Your task to perform on an android device: Open network settings Image 0: 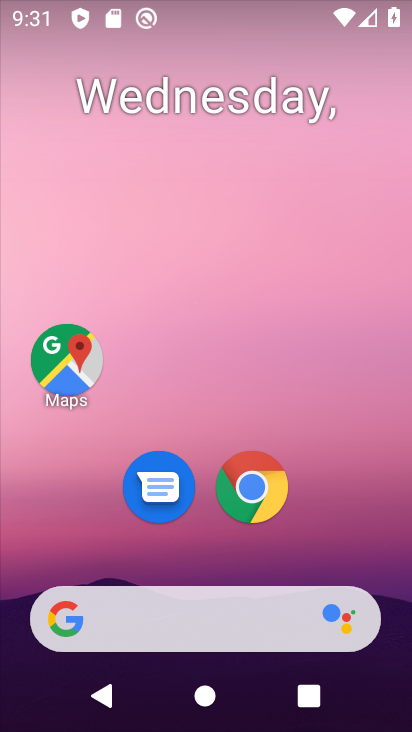
Step 0: drag from (46, 692) to (306, 112)
Your task to perform on an android device: Open network settings Image 1: 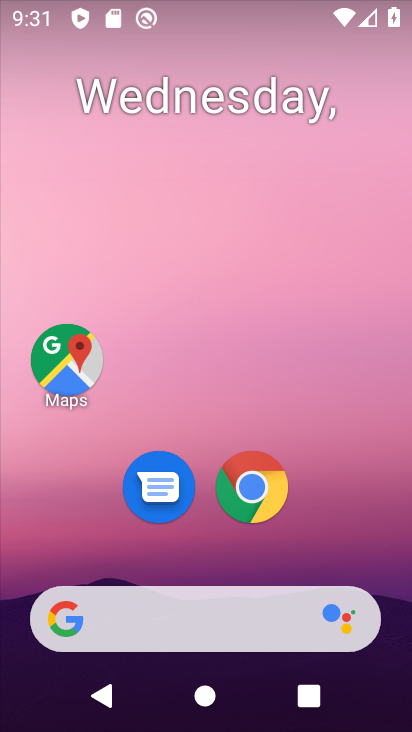
Step 1: drag from (114, 586) to (218, 329)
Your task to perform on an android device: Open network settings Image 2: 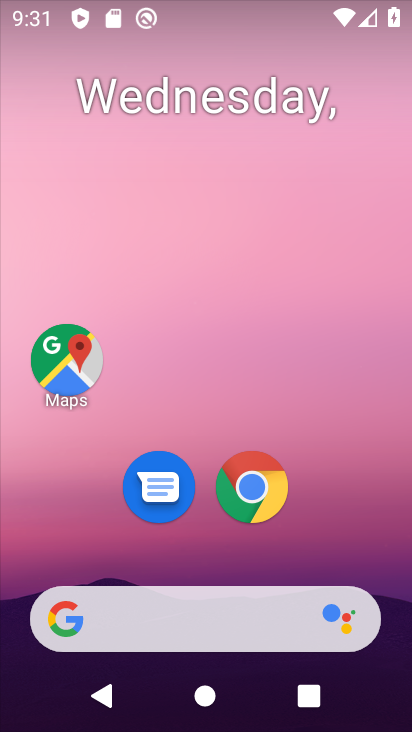
Step 2: drag from (10, 686) to (192, 179)
Your task to perform on an android device: Open network settings Image 3: 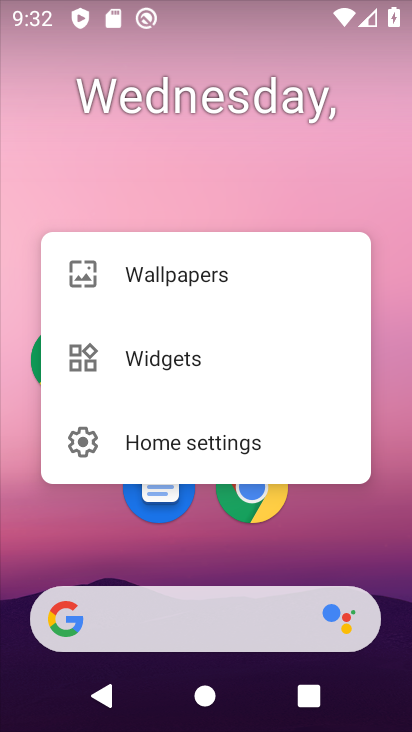
Step 3: click (89, 519)
Your task to perform on an android device: Open network settings Image 4: 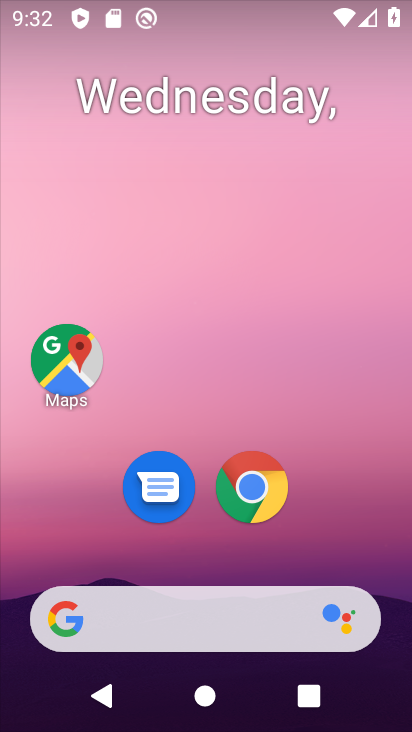
Step 4: drag from (13, 547) to (223, 120)
Your task to perform on an android device: Open network settings Image 5: 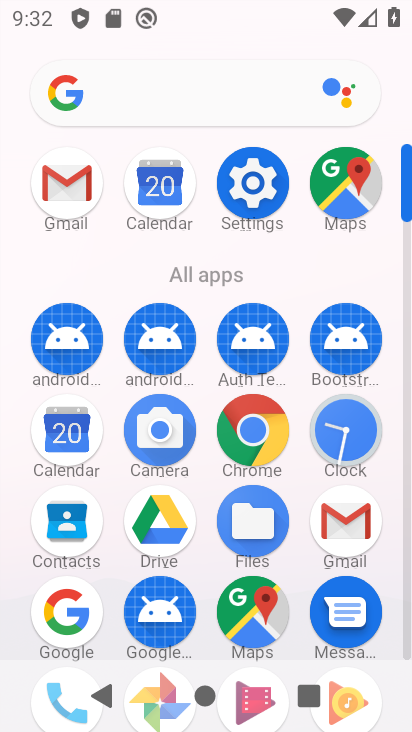
Step 5: click (279, 200)
Your task to perform on an android device: Open network settings Image 6: 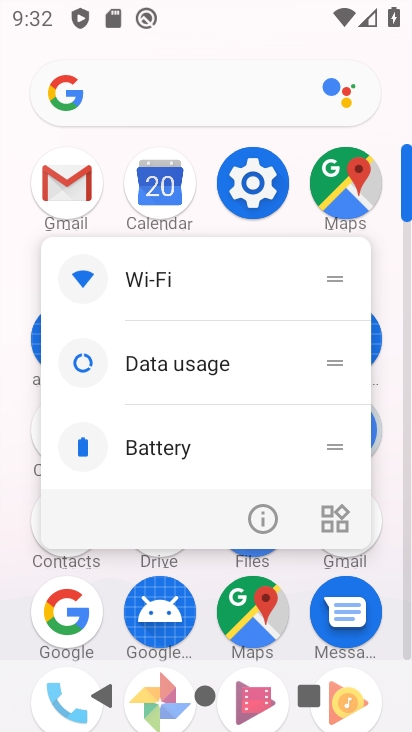
Step 6: click (250, 194)
Your task to perform on an android device: Open network settings Image 7: 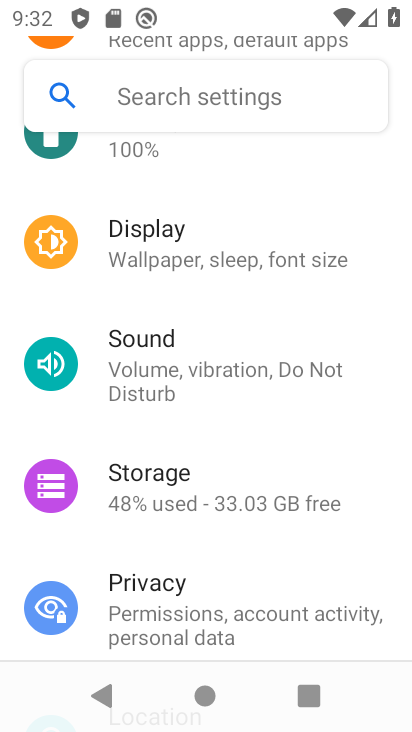
Step 7: drag from (220, 195) to (175, 450)
Your task to perform on an android device: Open network settings Image 8: 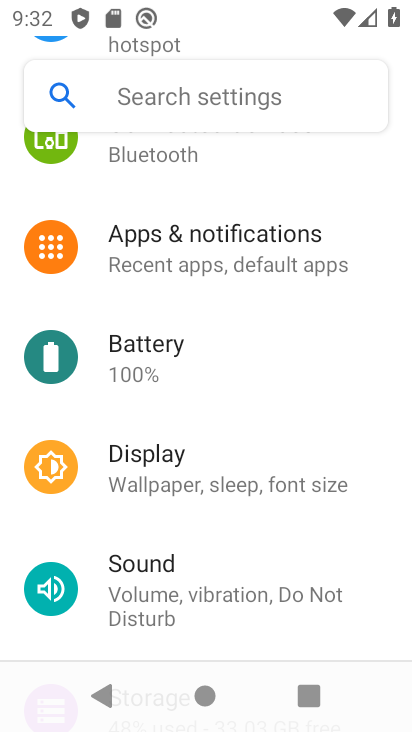
Step 8: drag from (261, 143) to (98, 529)
Your task to perform on an android device: Open network settings Image 9: 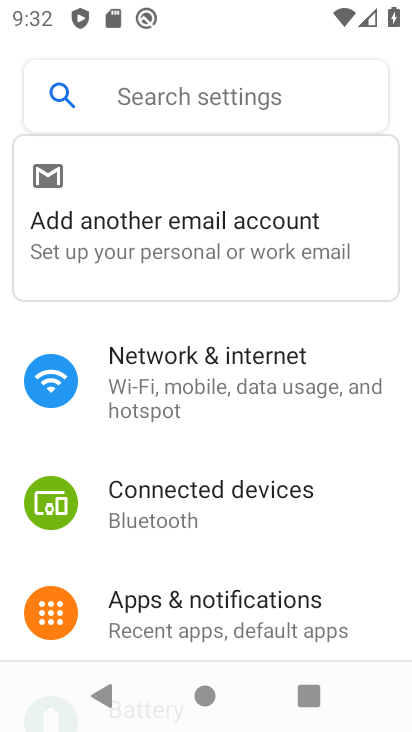
Step 9: click (232, 365)
Your task to perform on an android device: Open network settings Image 10: 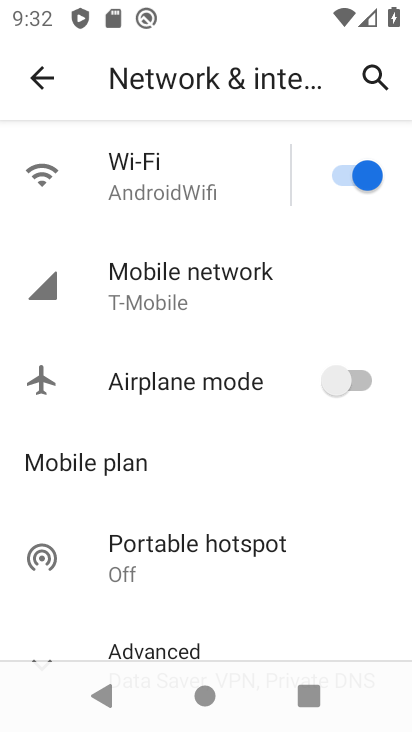
Step 10: drag from (110, 641) to (212, 256)
Your task to perform on an android device: Open network settings Image 11: 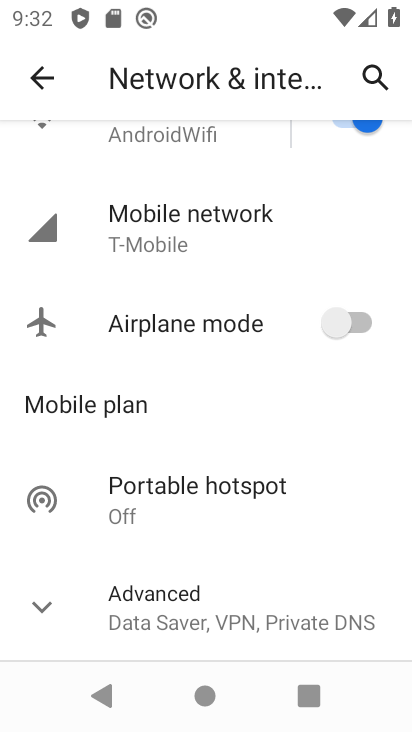
Step 11: click (154, 628)
Your task to perform on an android device: Open network settings Image 12: 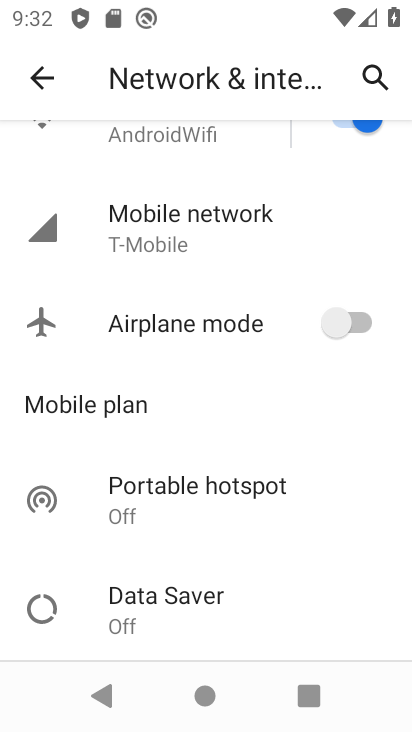
Step 12: drag from (65, 643) to (178, 262)
Your task to perform on an android device: Open network settings Image 13: 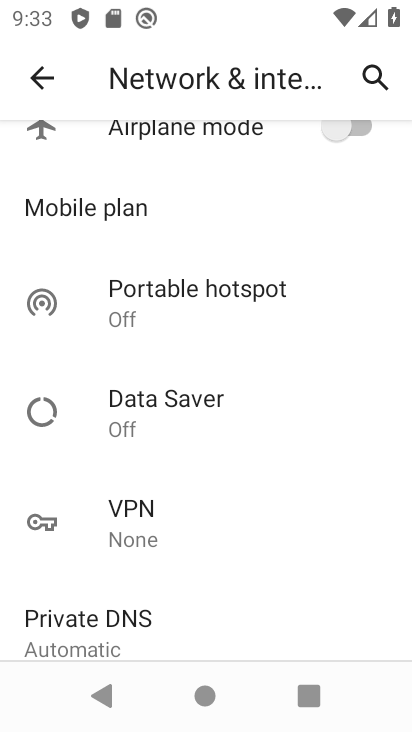
Step 13: drag from (139, 640) to (216, 270)
Your task to perform on an android device: Open network settings Image 14: 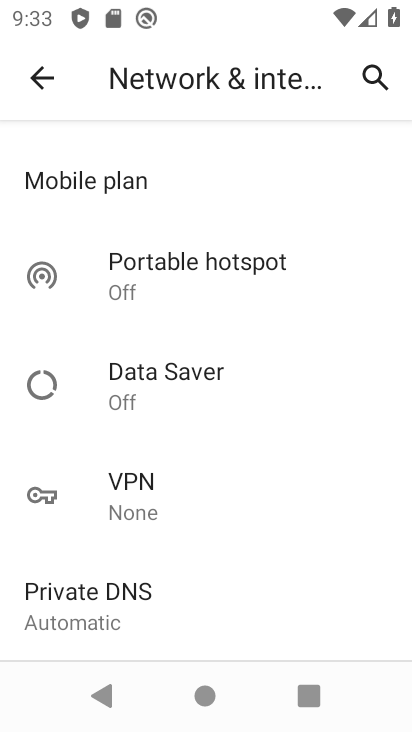
Step 14: drag from (90, 614) to (209, 344)
Your task to perform on an android device: Open network settings Image 15: 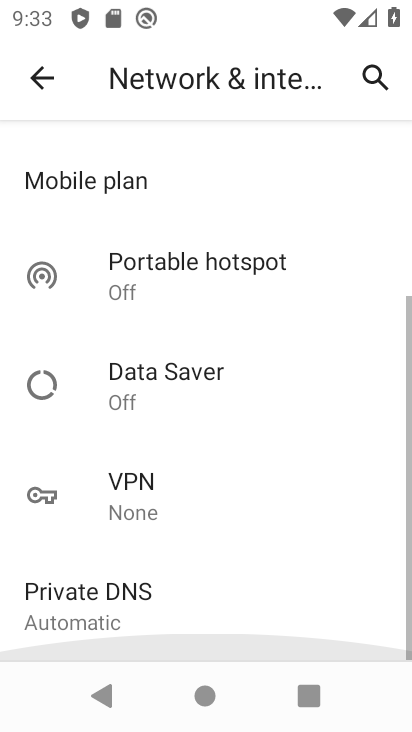
Step 15: drag from (278, 245) to (111, 564)
Your task to perform on an android device: Open network settings Image 16: 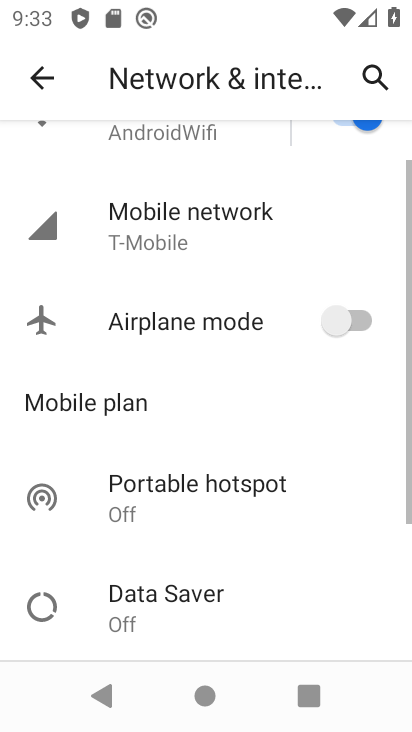
Step 16: drag from (268, 144) to (84, 522)
Your task to perform on an android device: Open network settings Image 17: 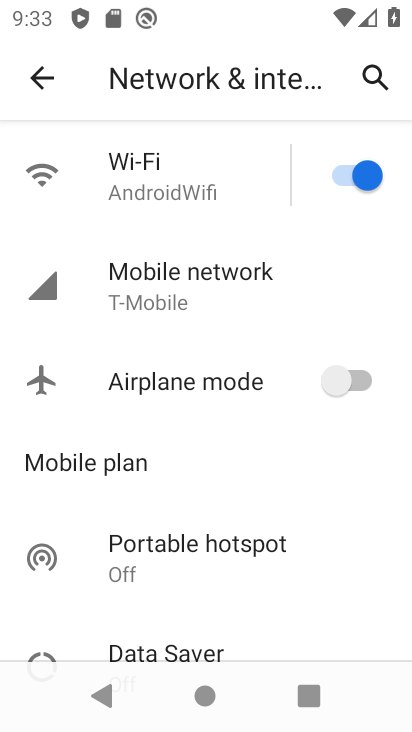
Step 17: click (201, 292)
Your task to perform on an android device: Open network settings Image 18: 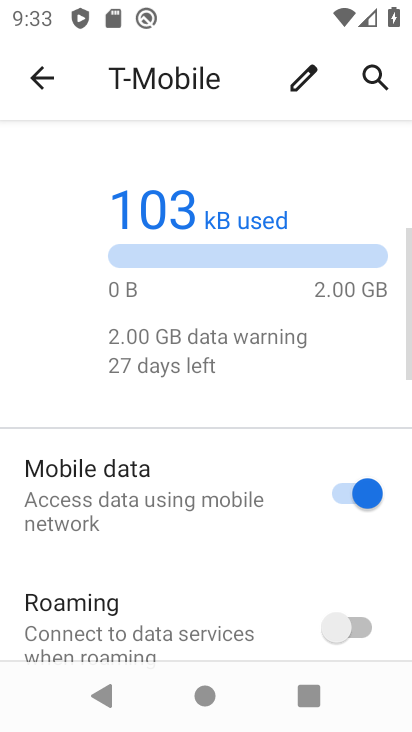
Step 18: drag from (210, 581) to (276, 239)
Your task to perform on an android device: Open network settings Image 19: 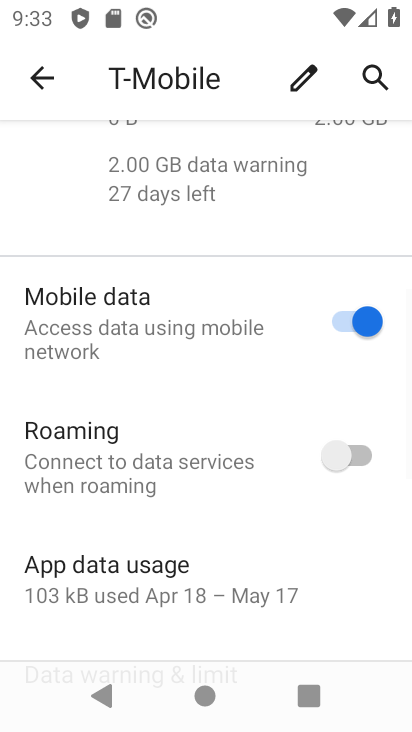
Step 19: drag from (102, 652) to (197, 318)
Your task to perform on an android device: Open network settings Image 20: 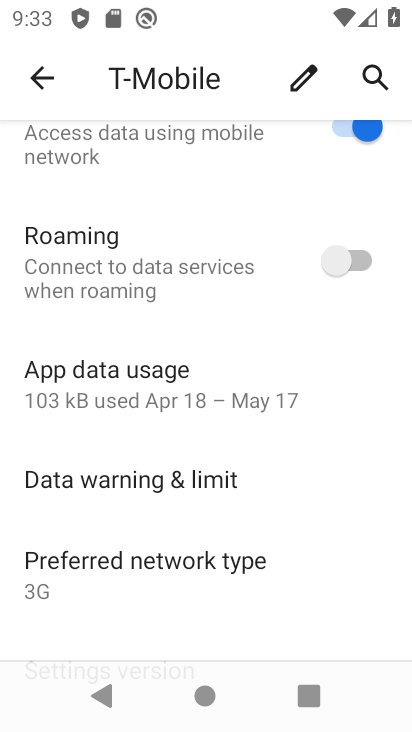
Step 20: drag from (160, 548) to (232, 224)
Your task to perform on an android device: Open network settings Image 21: 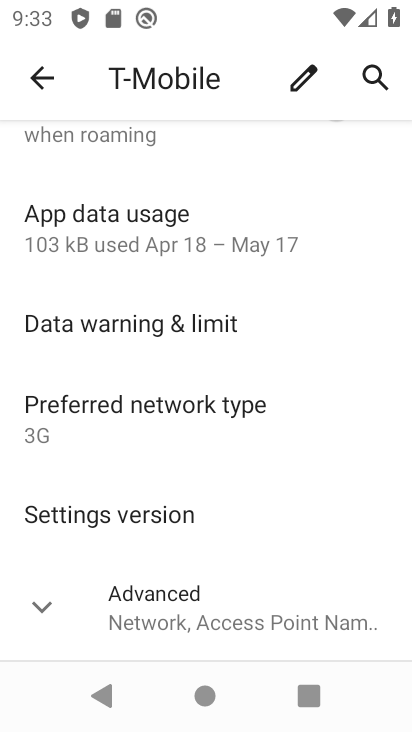
Step 21: drag from (64, 590) to (179, 355)
Your task to perform on an android device: Open network settings Image 22: 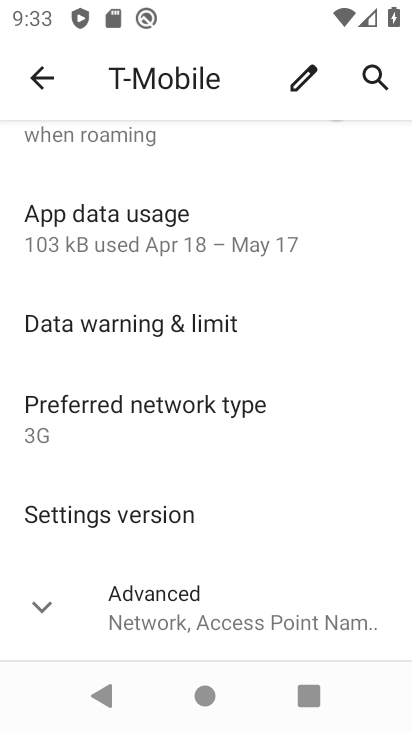
Step 22: click (167, 620)
Your task to perform on an android device: Open network settings Image 23: 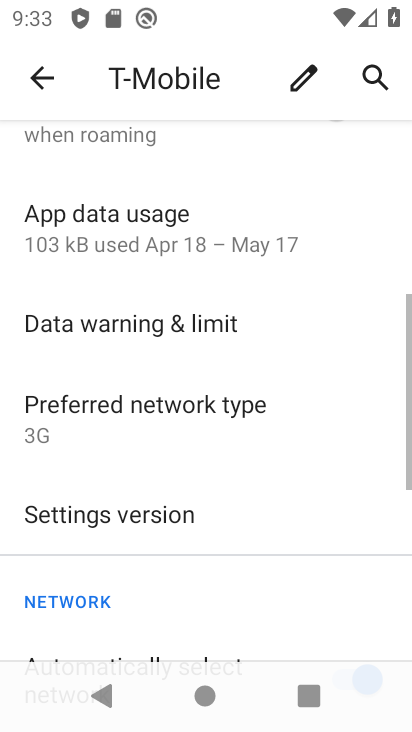
Step 23: task complete